Your task to perform on an android device: Search for vegetarian restaurants on Maps Image 0: 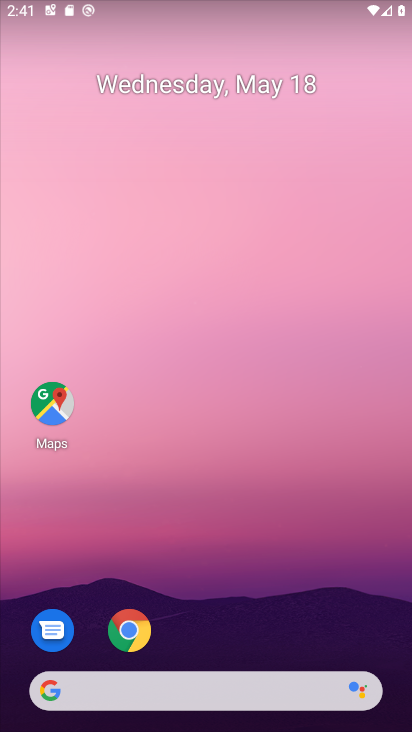
Step 0: drag from (209, 648) to (272, 122)
Your task to perform on an android device: Search for vegetarian restaurants on Maps Image 1: 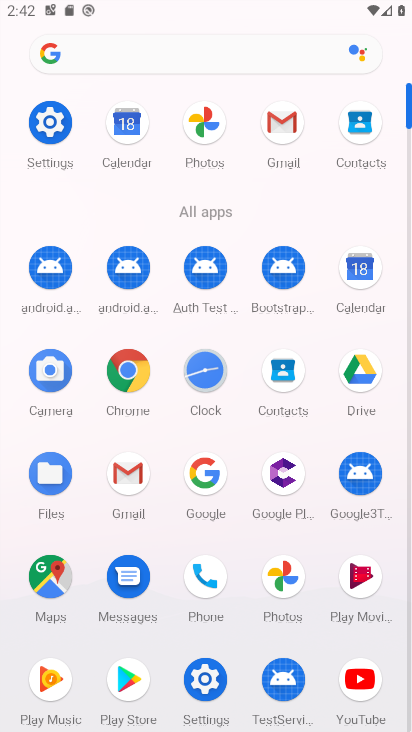
Step 1: click (52, 569)
Your task to perform on an android device: Search for vegetarian restaurants on Maps Image 2: 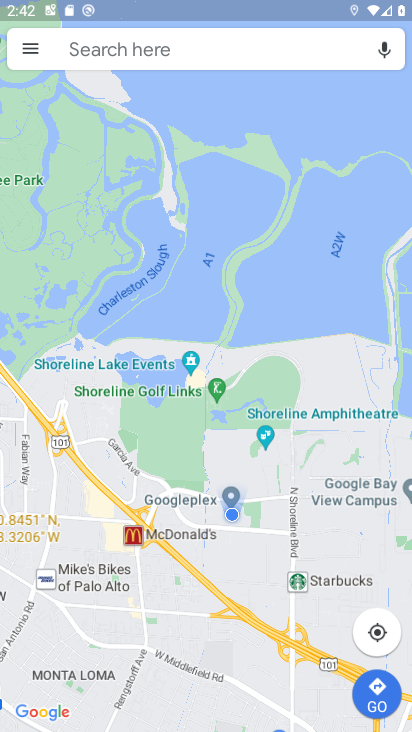
Step 2: click (165, 46)
Your task to perform on an android device: Search for vegetarian restaurants on Maps Image 3: 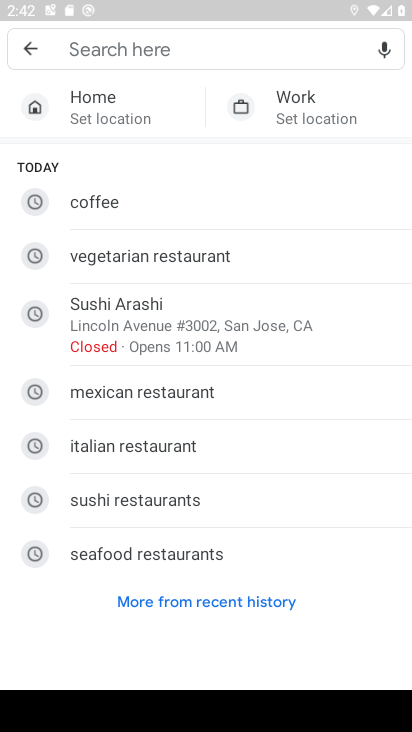
Step 3: click (170, 256)
Your task to perform on an android device: Search for vegetarian restaurants on Maps Image 4: 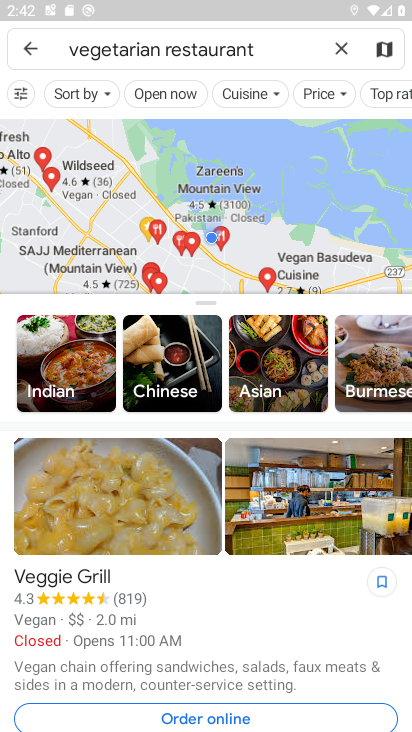
Step 4: task complete